Your task to perform on an android device: set default search engine in the chrome app Image 0: 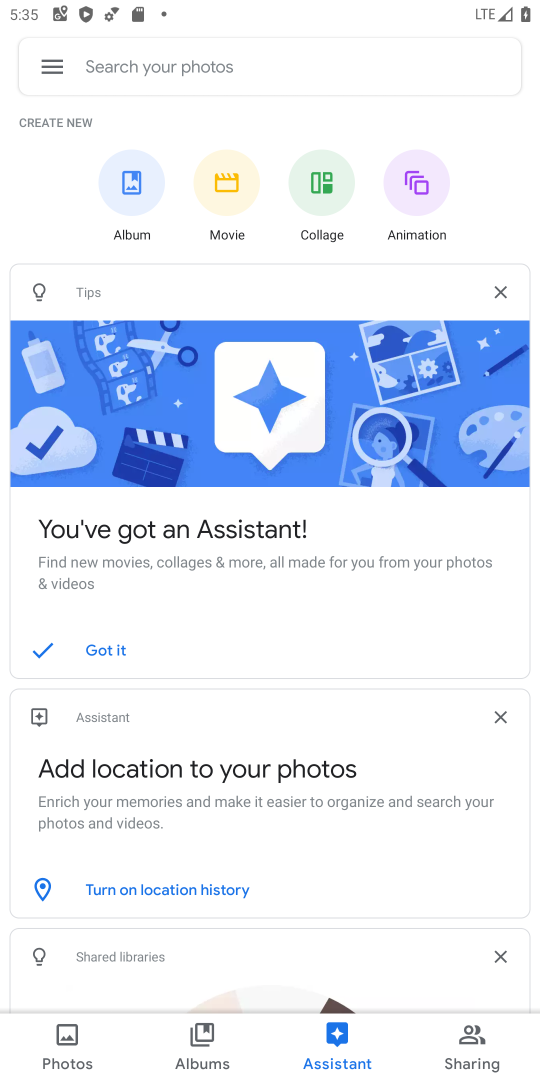
Step 0: press home button
Your task to perform on an android device: set default search engine in the chrome app Image 1: 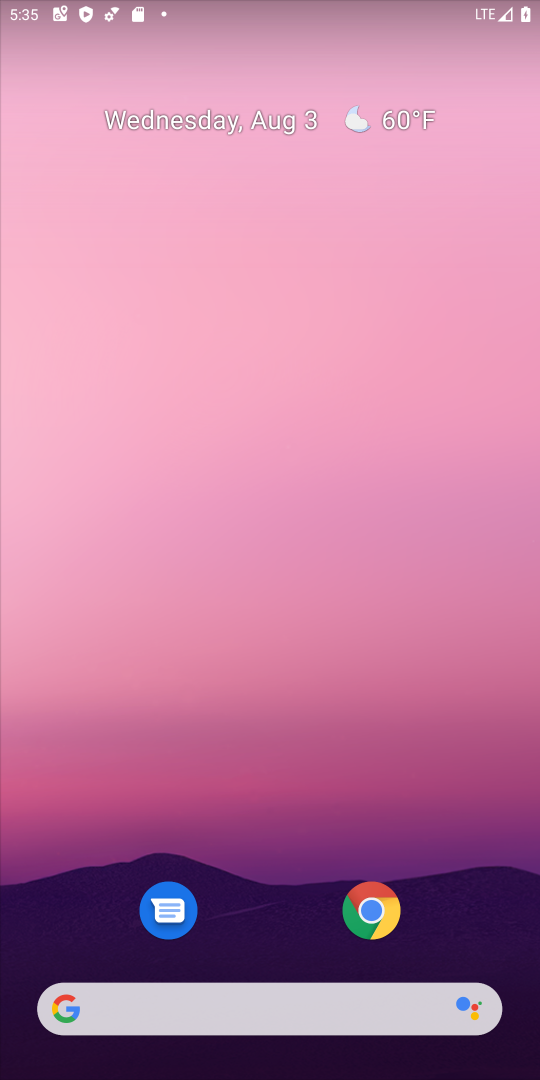
Step 1: click (374, 905)
Your task to perform on an android device: set default search engine in the chrome app Image 2: 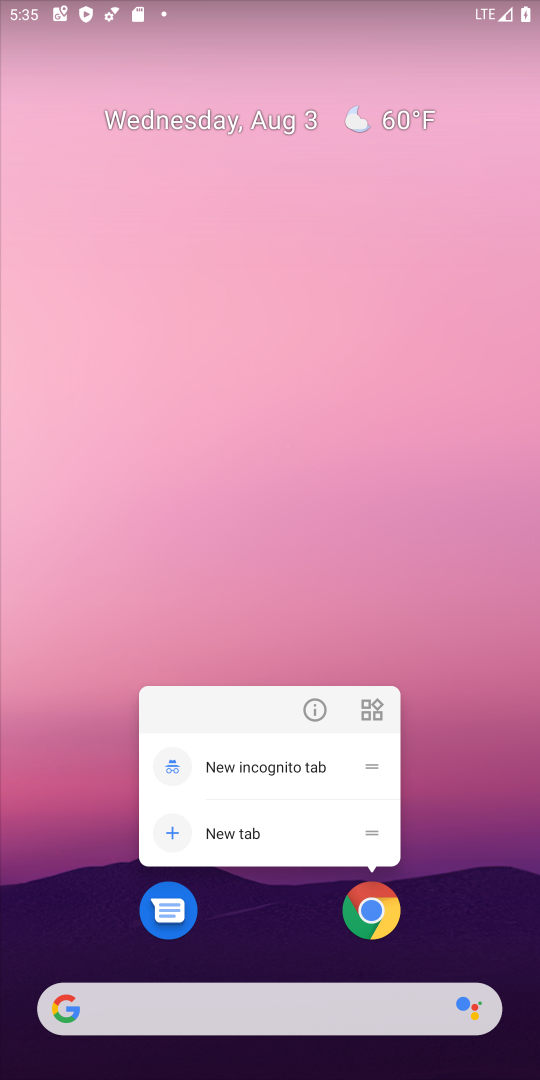
Step 2: click (387, 913)
Your task to perform on an android device: set default search engine in the chrome app Image 3: 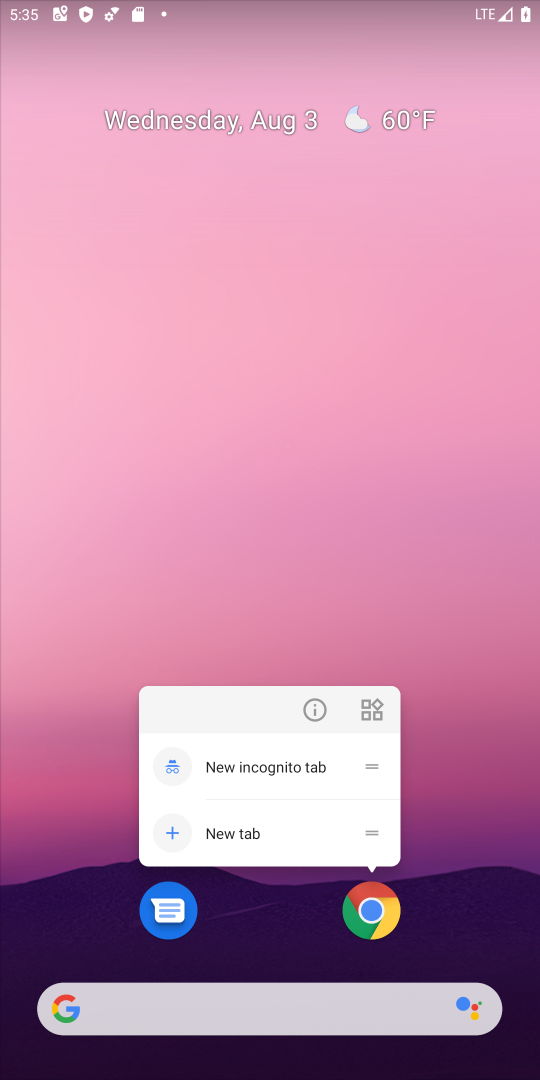
Step 3: click (373, 896)
Your task to perform on an android device: set default search engine in the chrome app Image 4: 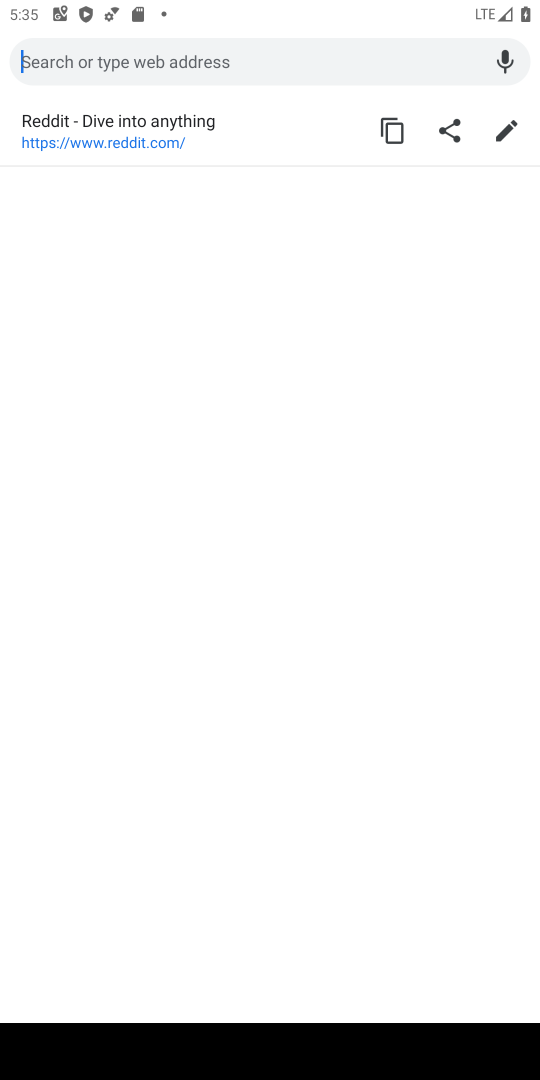
Step 4: press home button
Your task to perform on an android device: set default search engine in the chrome app Image 5: 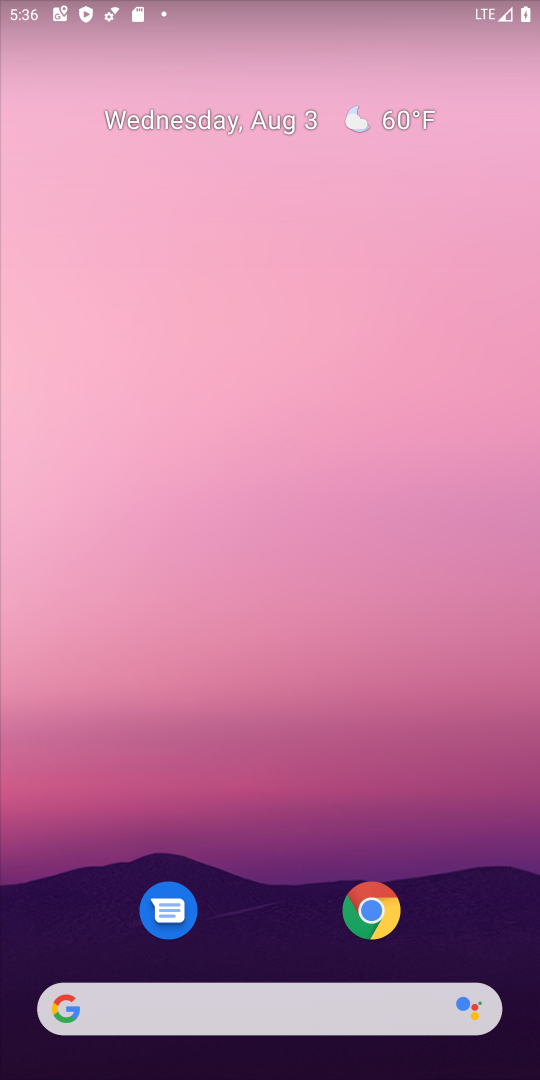
Step 5: drag from (284, 919) to (414, 0)
Your task to perform on an android device: set default search engine in the chrome app Image 6: 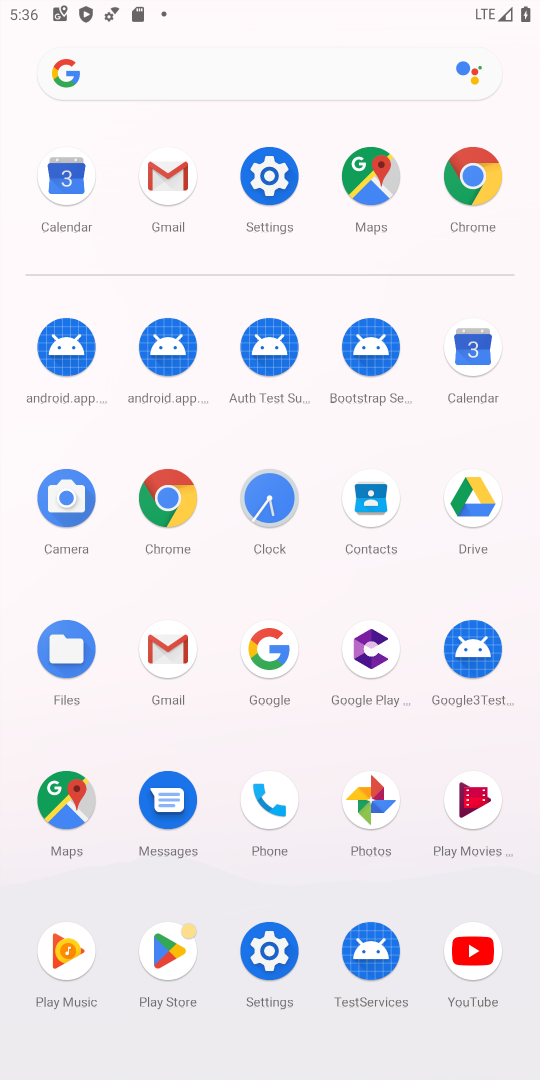
Step 6: click (173, 488)
Your task to perform on an android device: set default search engine in the chrome app Image 7: 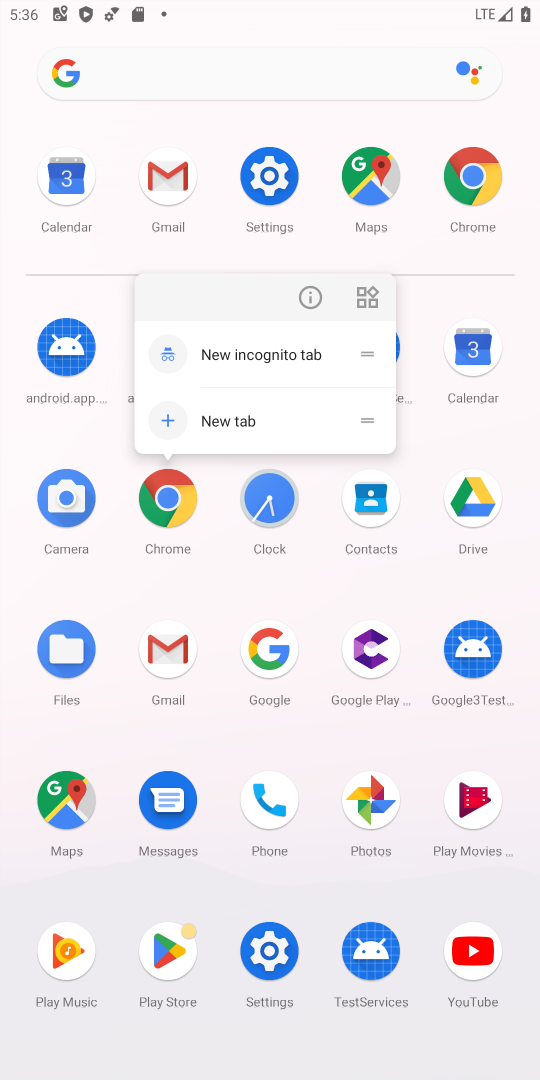
Step 7: click (167, 497)
Your task to perform on an android device: set default search engine in the chrome app Image 8: 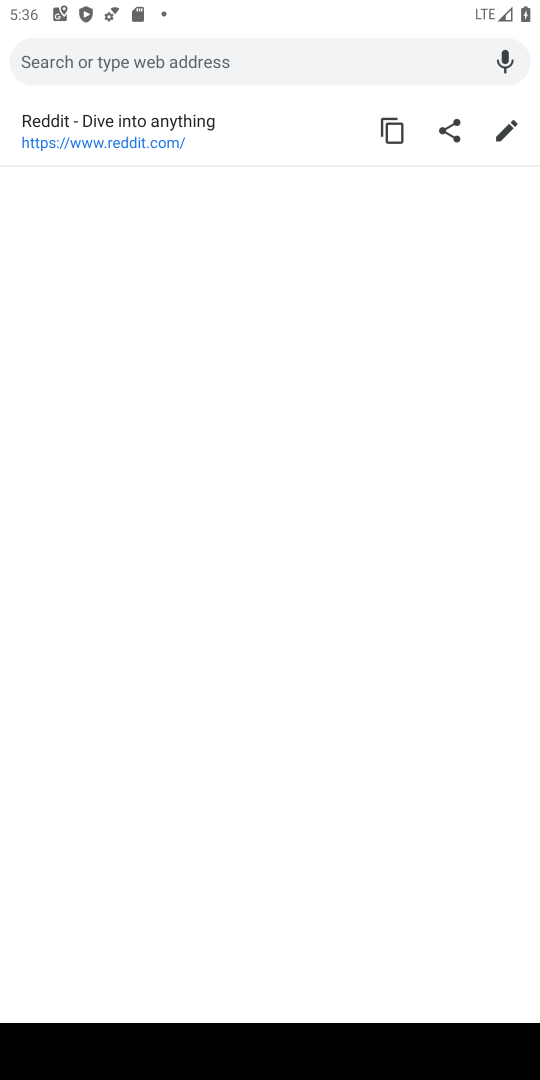
Step 8: press home button
Your task to perform on an android device: set default search engine in the chrome app Image 9: 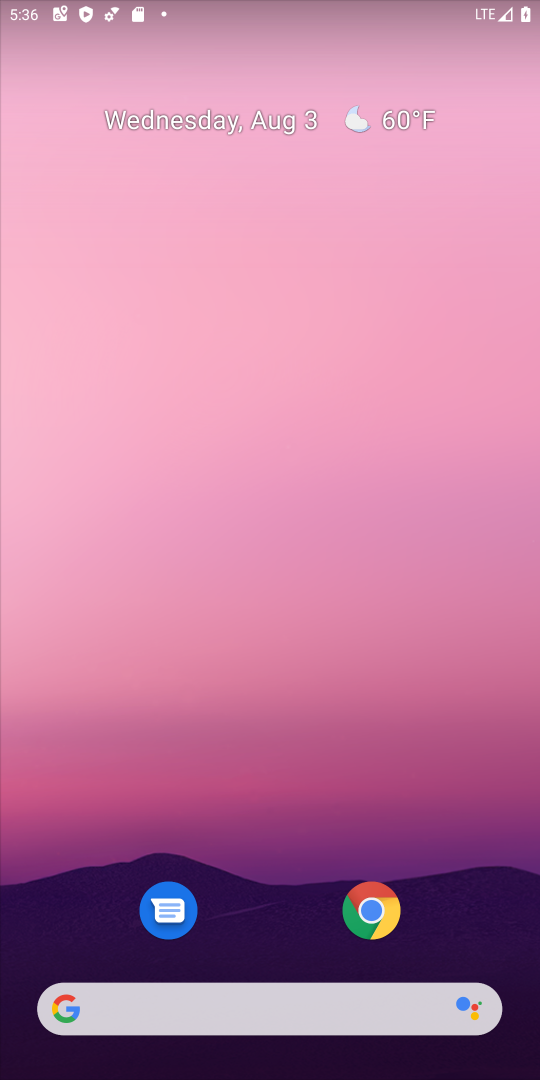
Step 9: drag from (252, 942) to (285, 92)
Your task to perform on an android device: set default search engine in the chrome app Image 10: 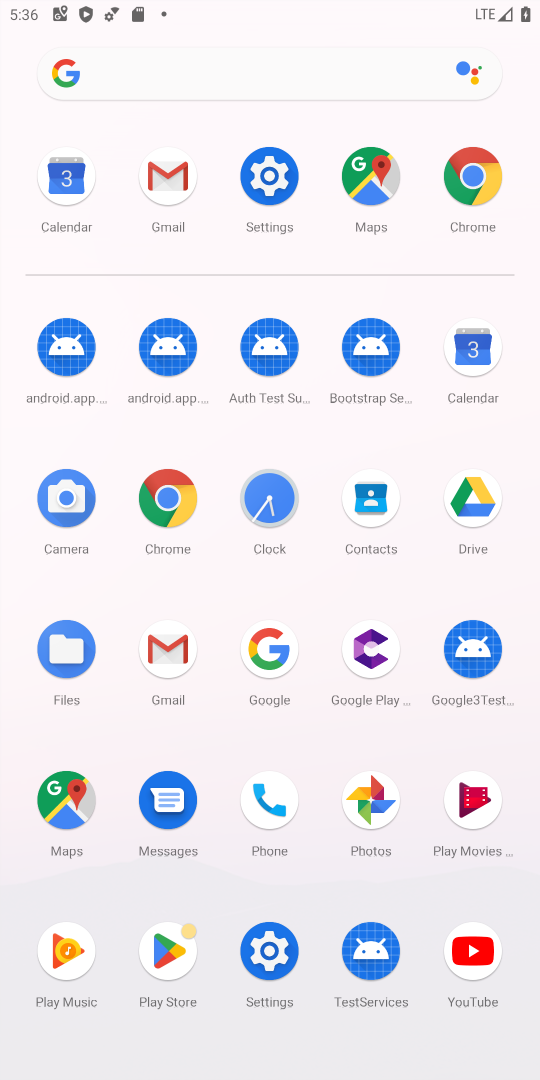
Step 10: click (169, 486)
Your task to perform on an android device: set default search engine in the chrome app Image 11: 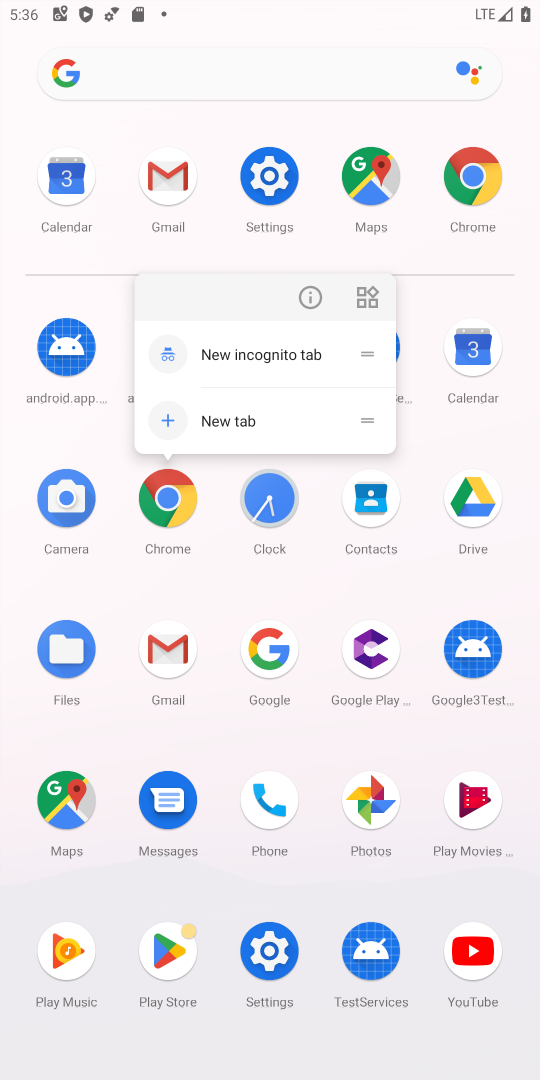
Step 11: click (169, 486)
Your task to perform on an android device: set default search engine in the chrome app Image 12: 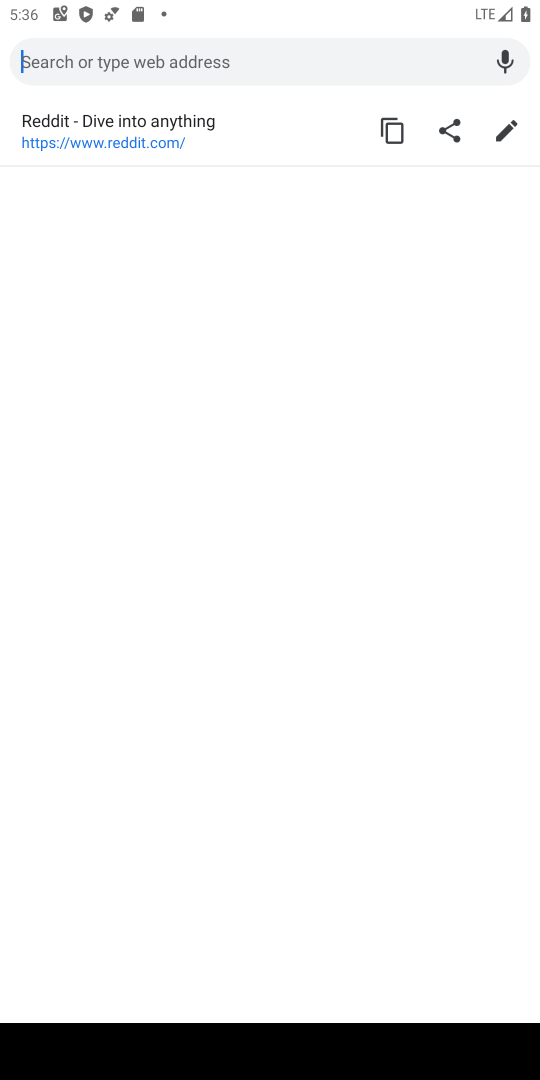
Step 12: press back button
Your task to perform on an android device: set default search engine in the chrome app Image 13: 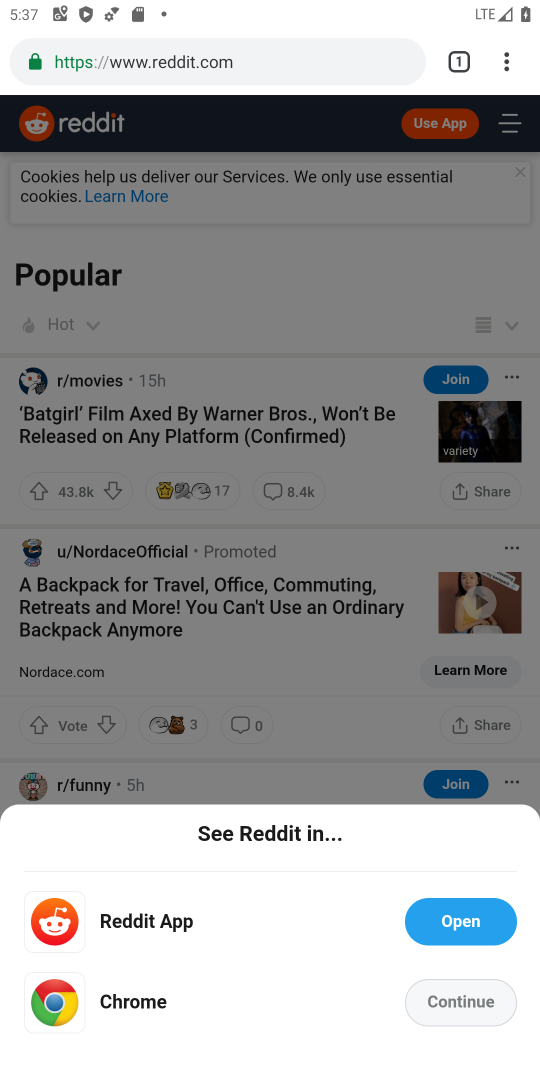
Step 13: drag from (510, 55) to (267, 804)
Your task to perform on an android device: set default search engine in the chrome app Image 14: 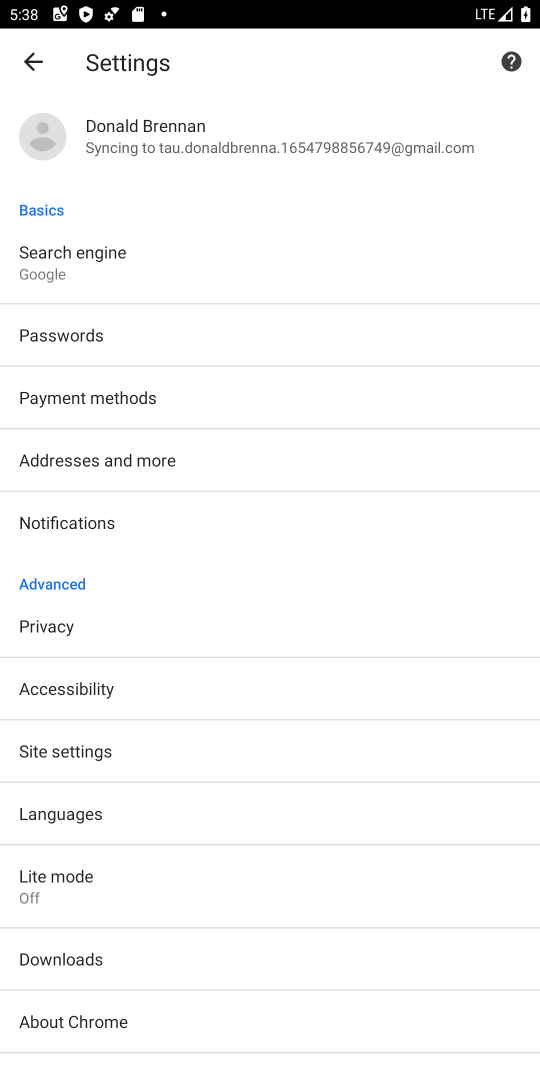
Step 14: click (34, 270)
Your task to perform on an android device: set default search engine in the chrome app Image 15: 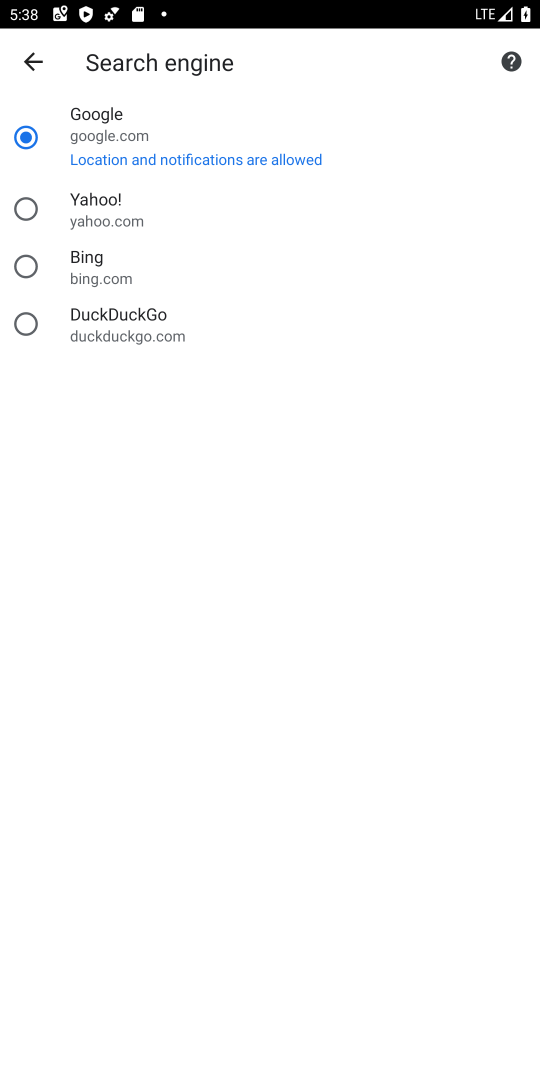
Step 15: task complete